Your task to perform on an android device: read, delete, or share a saved page in the chrome app Image 0: 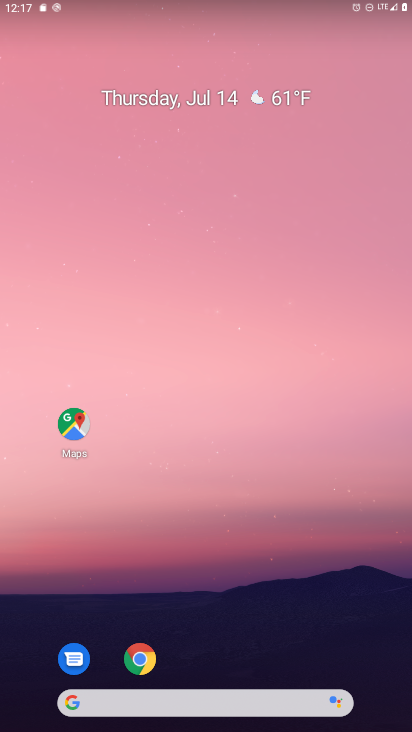
Step 0: click (138, 658)
Your task to perform on an android device: read, delete, or share a saved page in the chrome app Image 1: 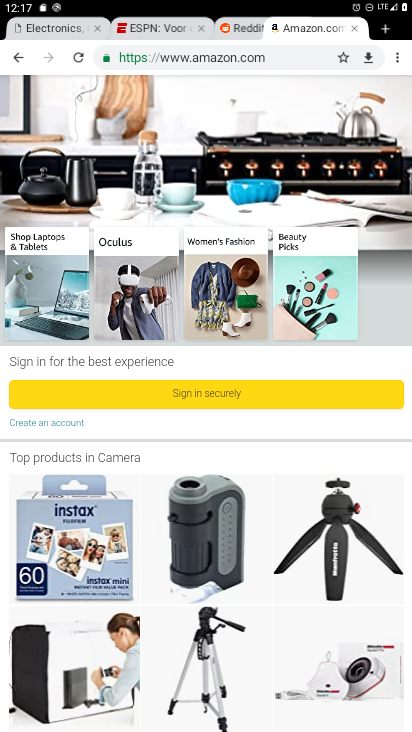
Step 1: click (393, 56)
Your task to perform on an android device: read, delete, or share a saved page in the chrome app Image 2: 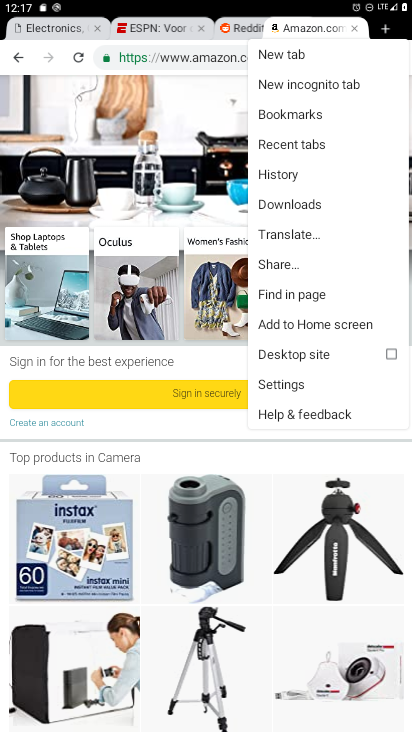
Step 2: click (282, 212)
Your task to perform on an android device: read, delete, or share a saved page in the chrome app Image 3: 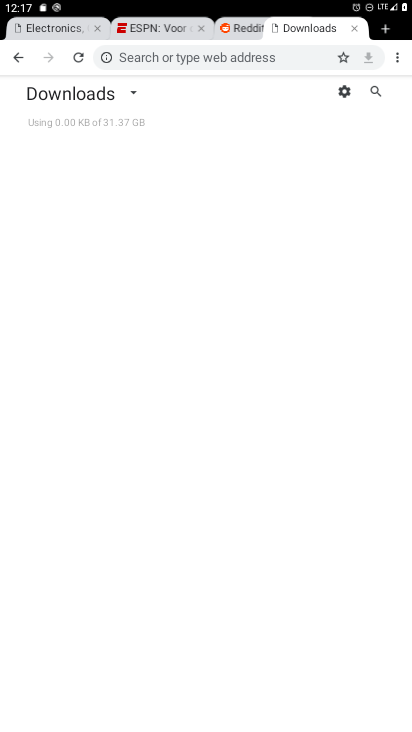
Step 3: click (128, 86)
Your task to perform on an android device: read, delete, or share a saved page in the chrome app Image 4: 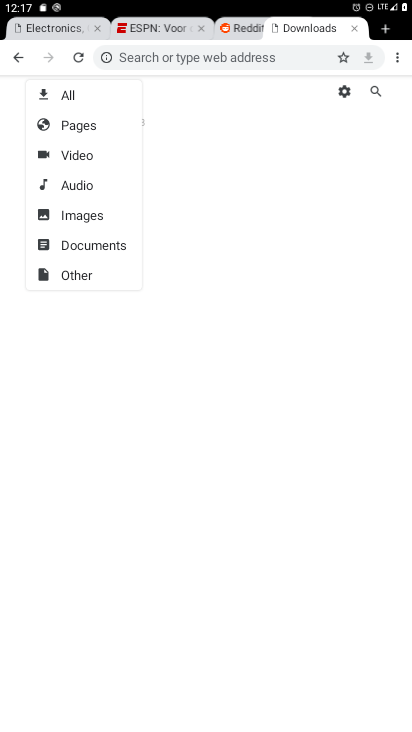
Step 4: click (67, 120)
Your task to perform on an android device: read, delete, or share a saved page in the chrome app Image 5: 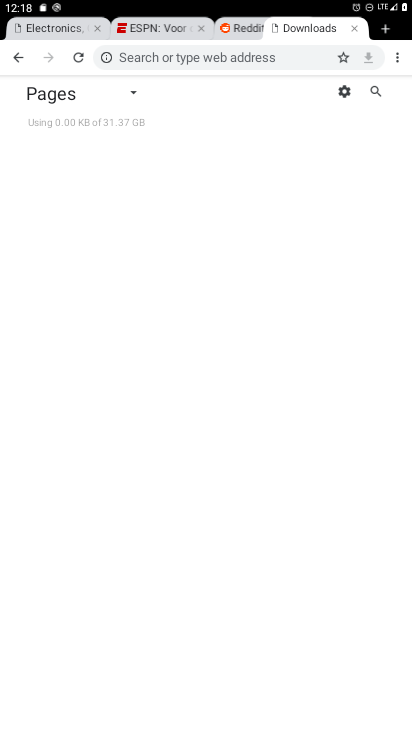
Step 5: task complete